Your task to perform on an android device: Go to network settings Image 0: 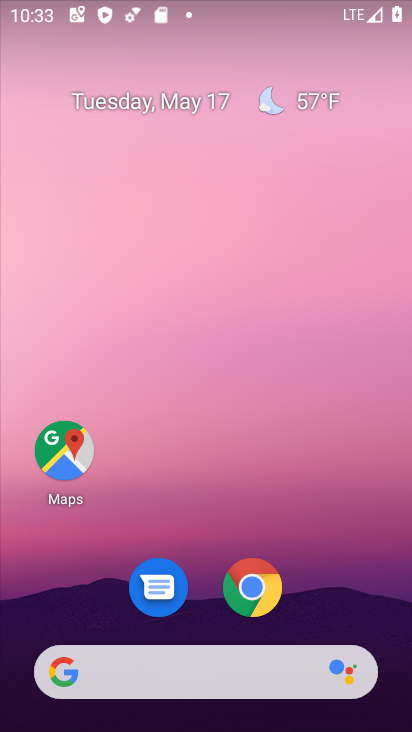
Step 0: drag from (367, 600) to (281, 54)
Your task to perform on an android device: Go to network settings Image 1: 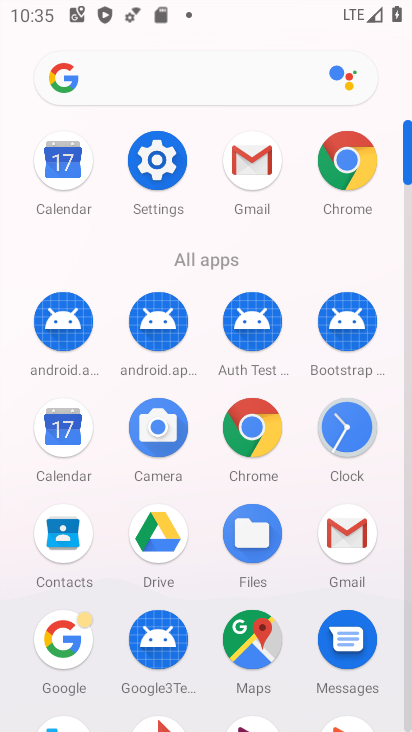
Step 1: click (165, 176)
Your task to perform on an android device: Go to network settings Image 2: 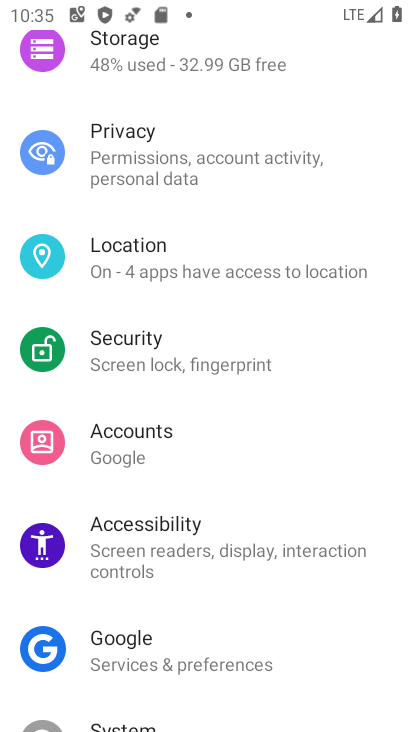
Step 2: drag from (169, 143) to (201, 584)
Your task to perform on an android device: Go to network settings Image 3: 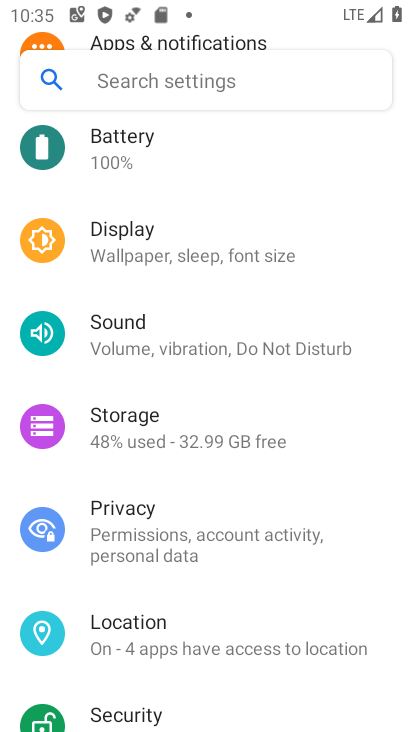
Step 3: drag from (181, 143) to (282, 576)
Your task to perform on an android device: Go to network settings Image 4: 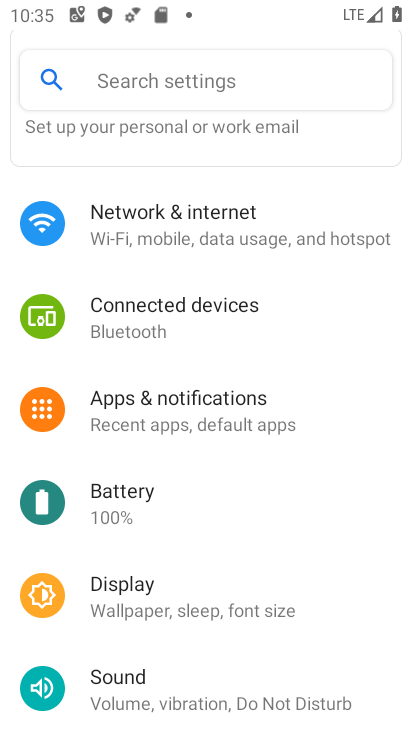
Step 4: click (153, 220)
Your task to perform on an android device: Go to network settings Image 5: 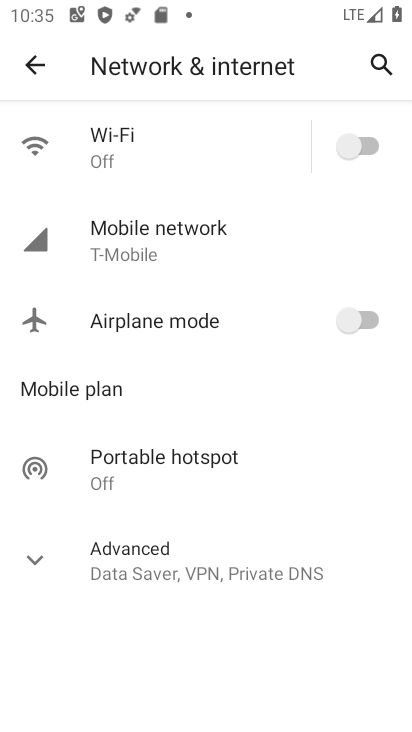
Step 5: task complete